Your task to perform on an android device: Open Google Maps Image 0: 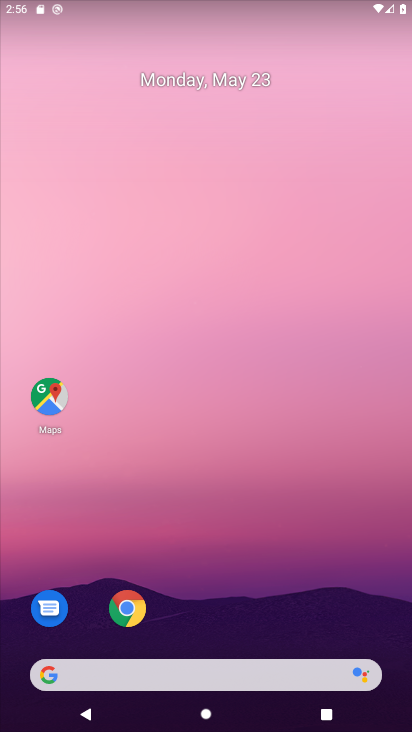
Step 0: click (56, 396)
Your task to perform on an android device: Open Google Maps Image 1: 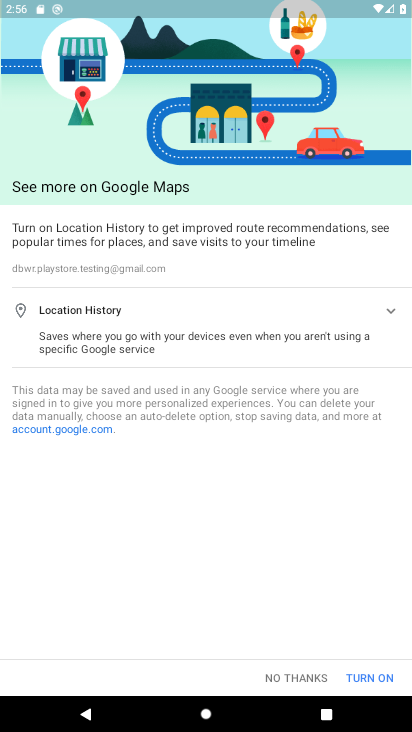
Step 1: click (307, 682)
Your task to perform on an android device: Open Google Maps Image 2: 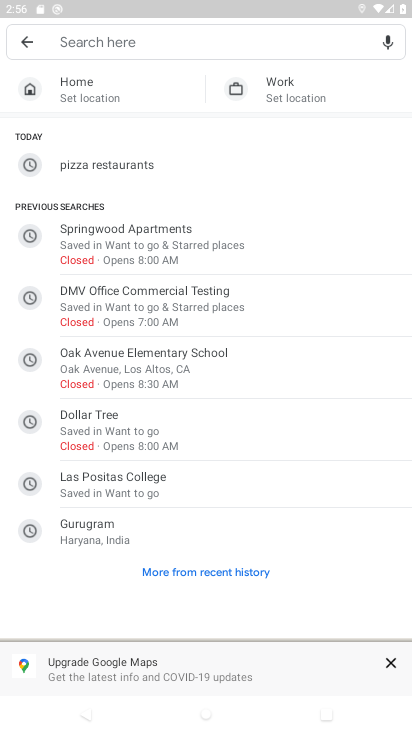
Step 2: click (23, 43)
Your task to perform on an android device: Open Google Maps Image 3: 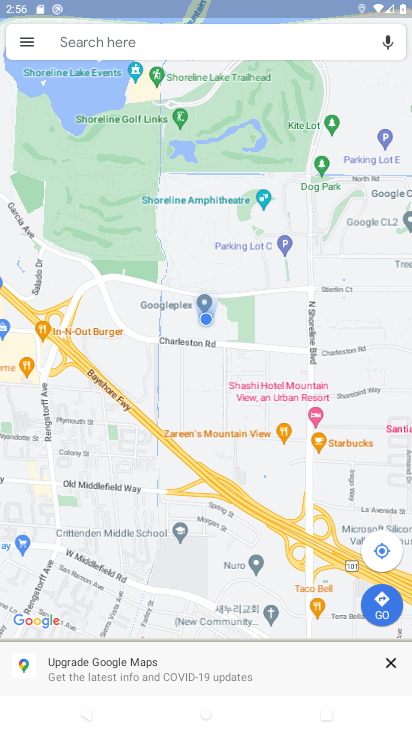
Step 3: task complete